Your task to perform on an android device: Is it going to rain today? Image 0: 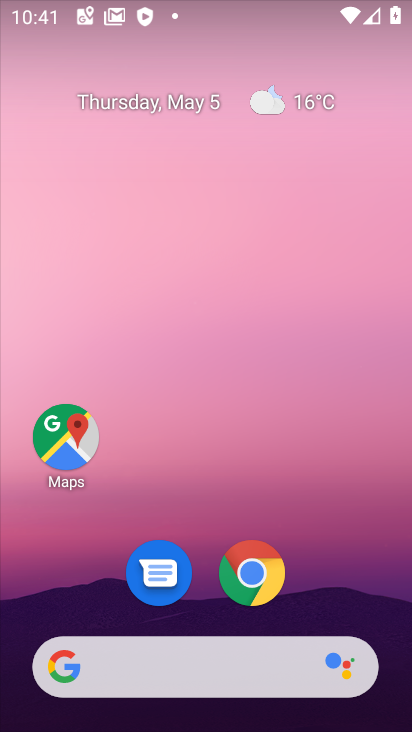
Step 0: drag from (384, 587) to (259, 0)
Your task to perform on an android device: Is it going to rain today? Image 1: 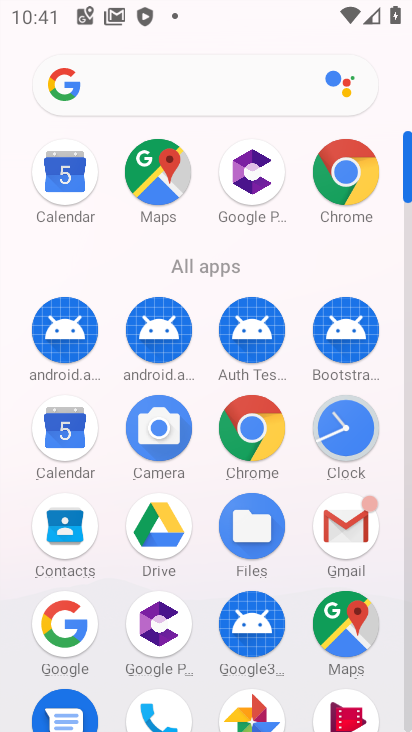
Step 1: click (181, 156)
Your task to perform on an android device: Is it going to rain today? Image 2: 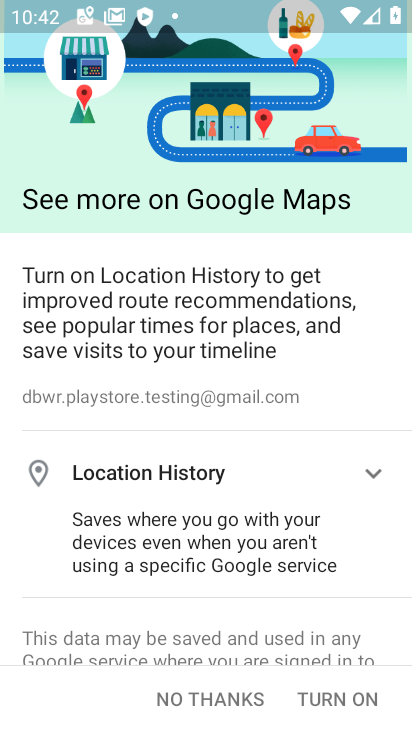
Step 2: click (347, 715)
Your task to perform on an android device: Is it going to rain today? Image 3: 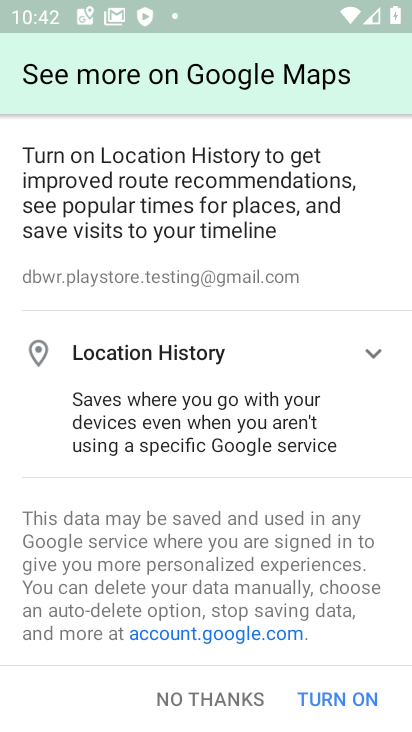
Step 3: click (347, 715)
Your task to perform on an android device: Is it going to rain today? Image 4: 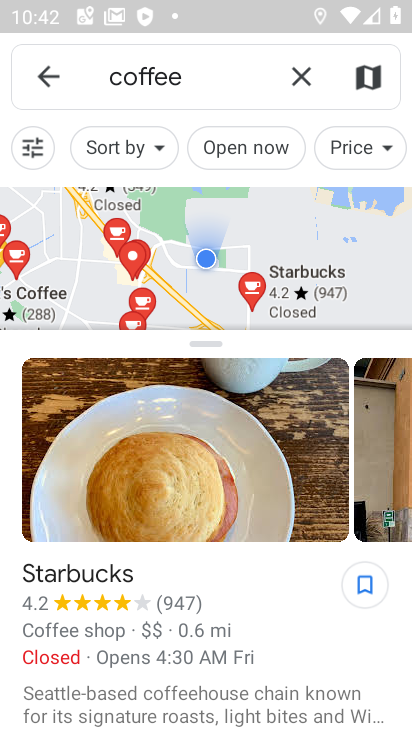
Step 4: press home button
Your task to perform on an android device: Is it going to rain today? Image 5: 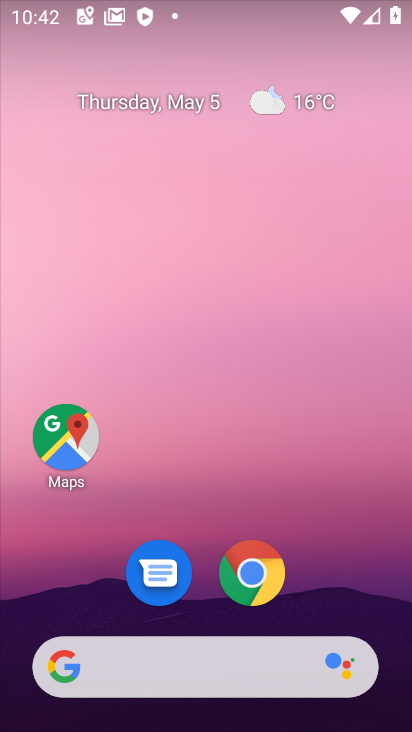
Step 5: click (306, 584)
Your task to perform on an android device: Is it going to rain today? Image 6: 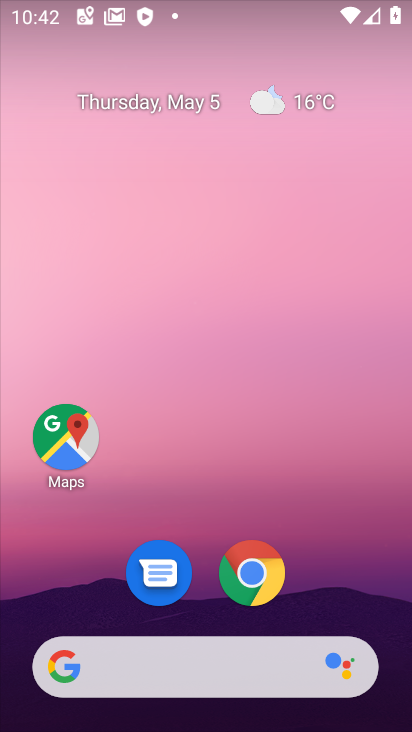
Step 6: click (234, 669)
Your task to perform on an android device: Is it going to rain today? Image 7: 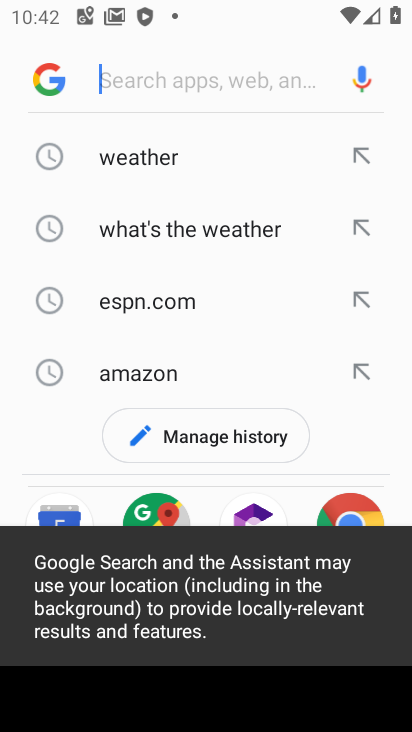
Step 7: click (199, 168)
Your task to perform on an android device: Is it going to rain today? Image 8: 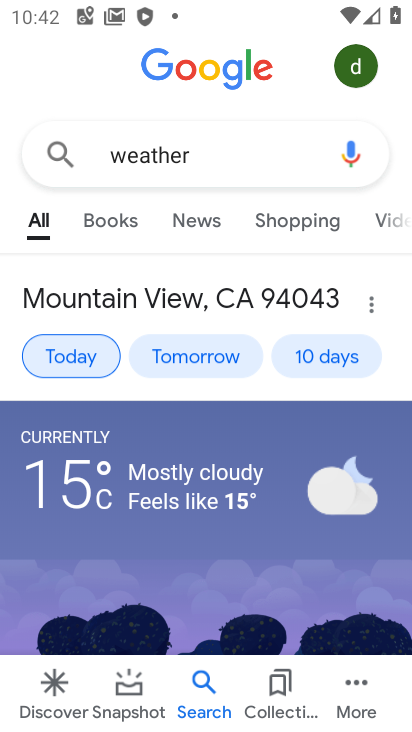
Step 8: task complete